Your task to perform on an android device: turn off improve location accuracy Image 0: 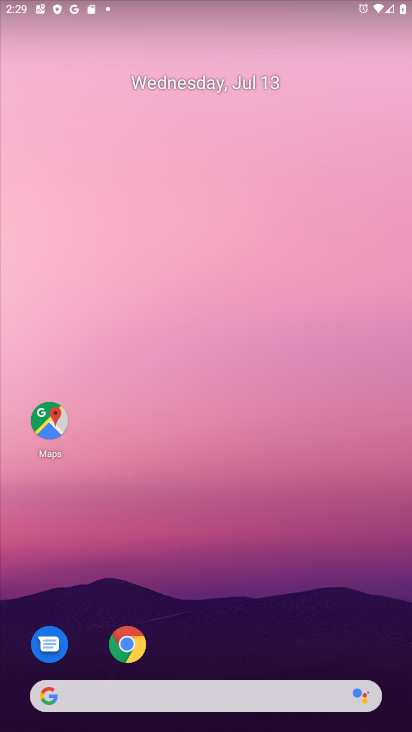
Step 0: drag from (209, 647) to (236, 80)
Your task to perform on an android device: turn off improve location accuracy Image 1: 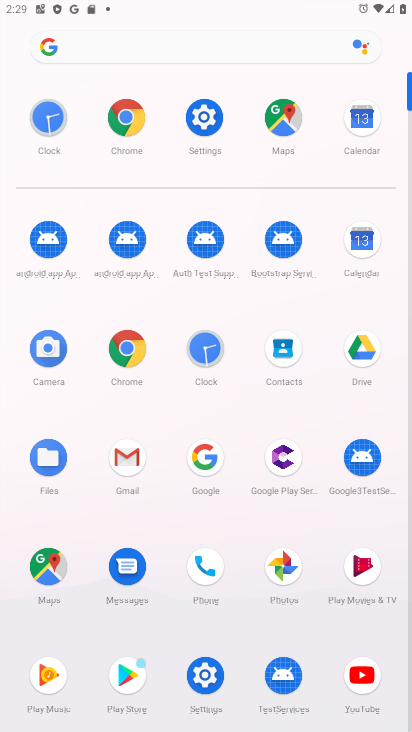
Step 1: click (205, 127)
Your task to perform on an android device: turn off improve location accuracy Image 2: 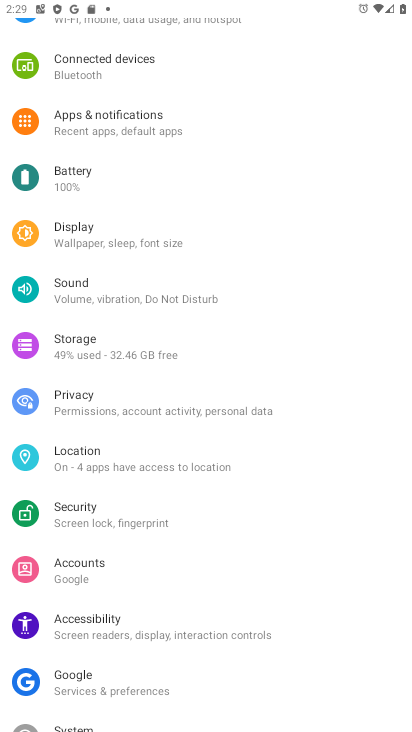
Step 2: click (86, 467)
Your task to perform on an android device: turn off improve location accuracy Image 3: 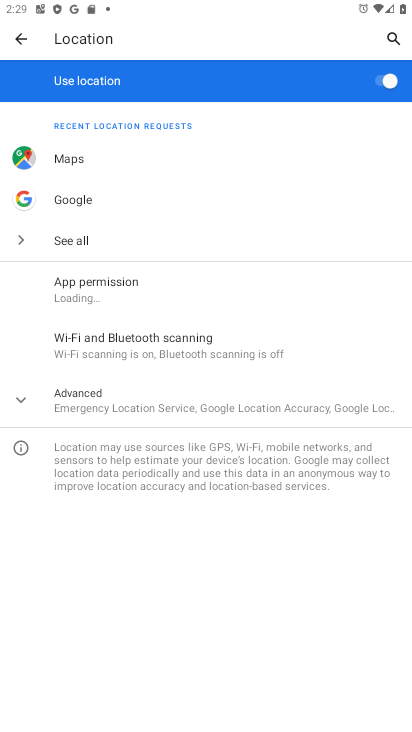
Step 3: click (110, 412)
Your task to perform on an android device: turn off improve location accuracy Image 4: 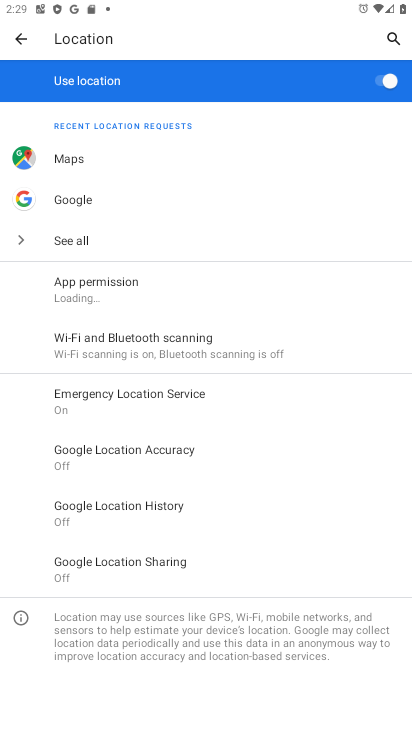
Step 4: click (137, 454)
Your task to perform on an android device: turn off improve location accuracy Image 5: 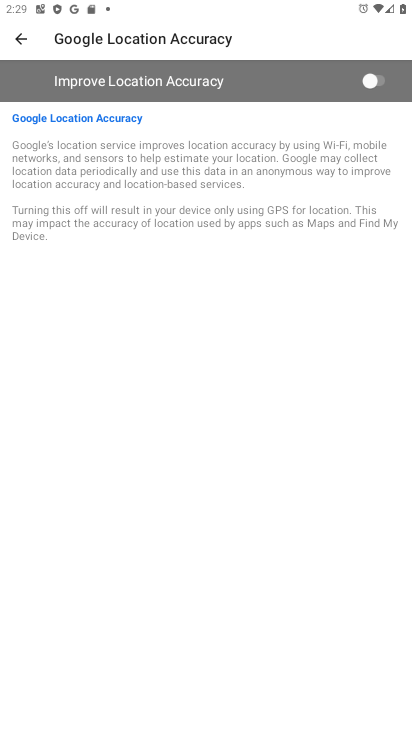
Step 5: task complete